Your task to perform on an android device: find which apps use the phone's location Image 0: 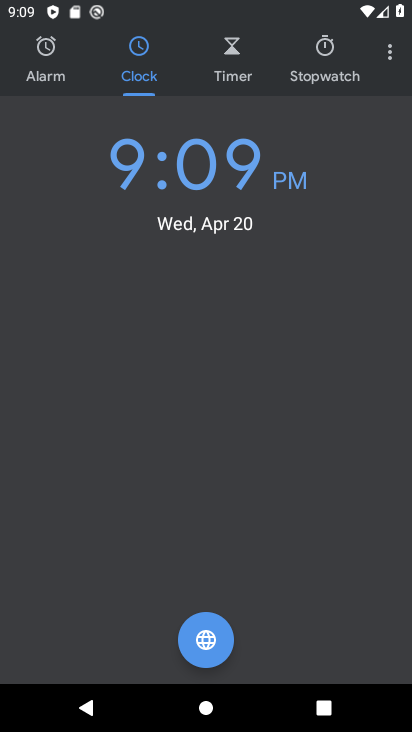
Step 0: press back button
Your task to perform on an android device: find which apps use the phone's location Image 1: 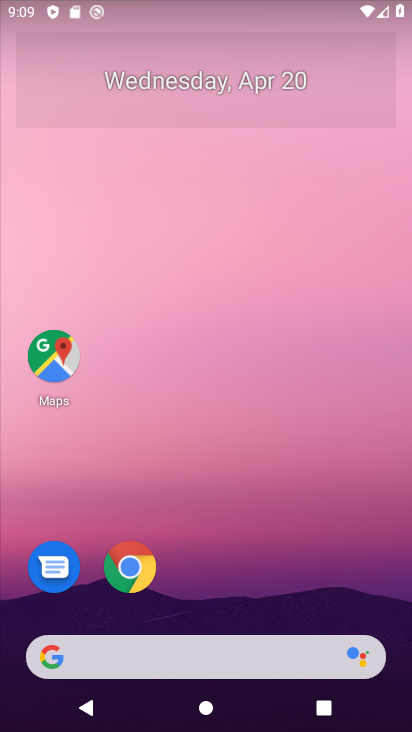
Step 1: drag from (241, 580) to (283, 115)
Your task to perform on an android device: find which apps use the phone's location Image 2: 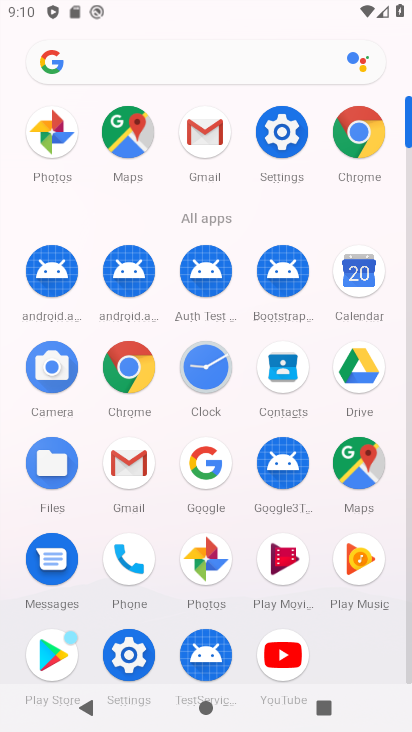
Step 2: click (138, 656)
Your task to perform on an android device: find which apps use the phone's location Image 3: 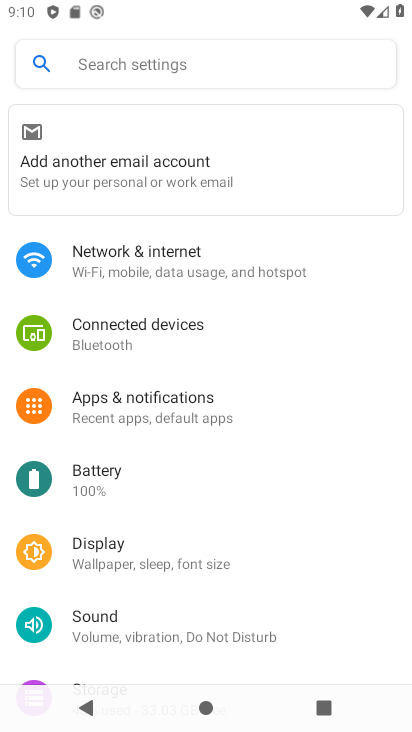
Step 3: drag from (174, 616) to (298, 116)
Your task to perform on an android device: find which apps use the phone's location Image 4: 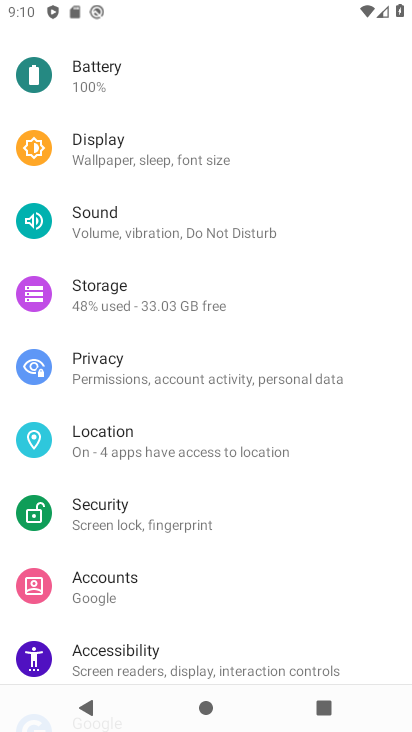
Step 4: click (233, 439)
Your task to perform on an android device: find which apps use the phone's location Image 5: 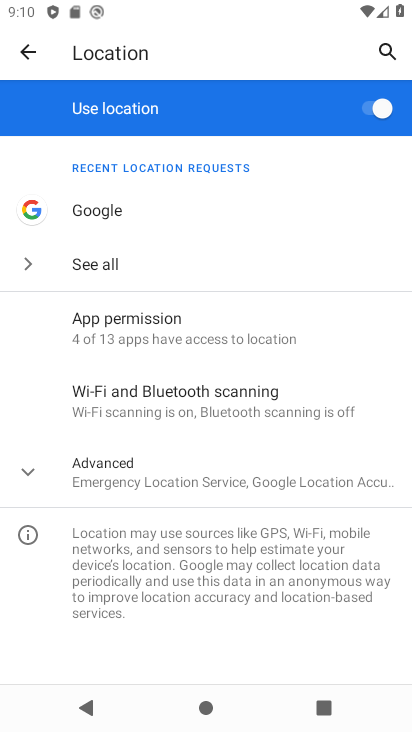
Step 5: click (132, 331)
Your task to perform on an android device: find which apps use the phone's location Image 6: 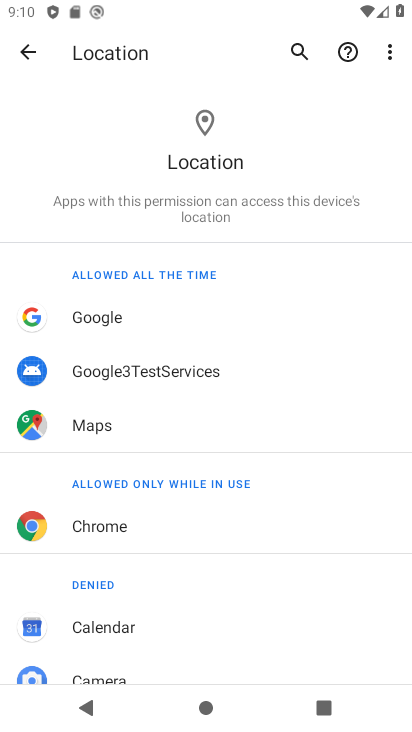
Step 6: task complete